Your task to perform on an android device: clear all cookies in the chrome app Image 0: 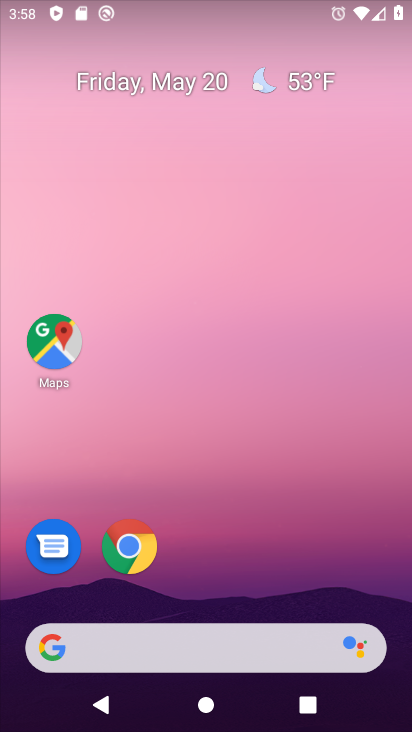
Step 0: click (132, 550)
Your task to perform on an android device: clear all cookies in the chrome app Image 1: 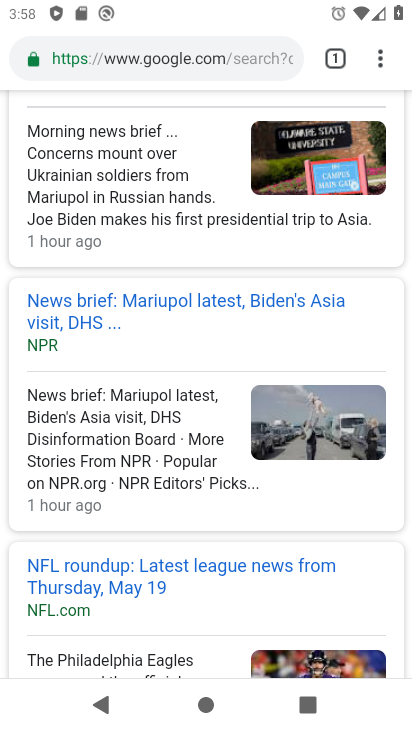
Step 1: drag from (383, 66) to (183, 232)
Your task to perform on an android device: clear all cookies in the chrome app Image 2: 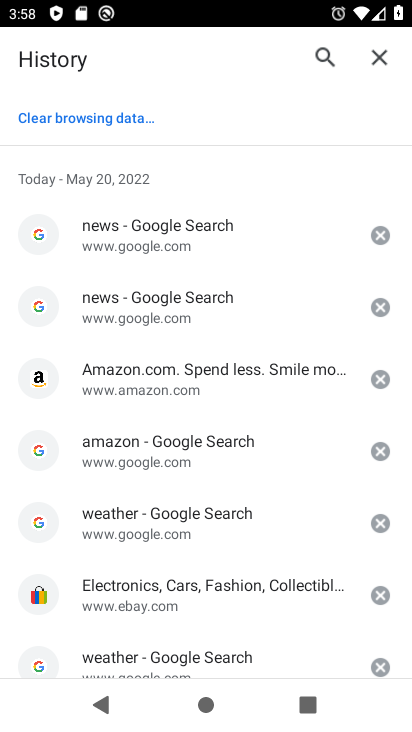
Step 2: click (98, 117)
Your task to perform on an android device: clear all cookies in the chrome app Image 3: 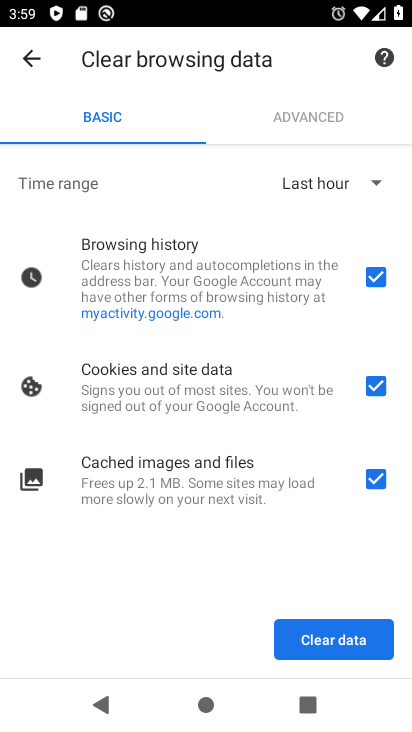
Step 3: click (311, 171)
Your task to perform on an android device: clear all cookies in the chrome app Image 4: 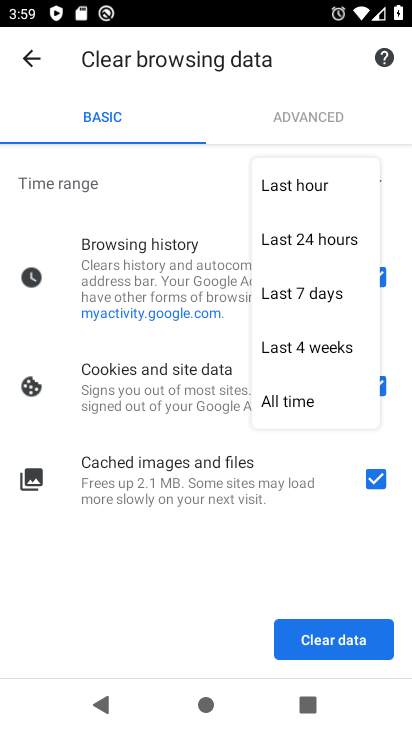
Step 4: click (297, 406)
Your task to perform on an android device: clear all cookies in the chrome app Image 5: 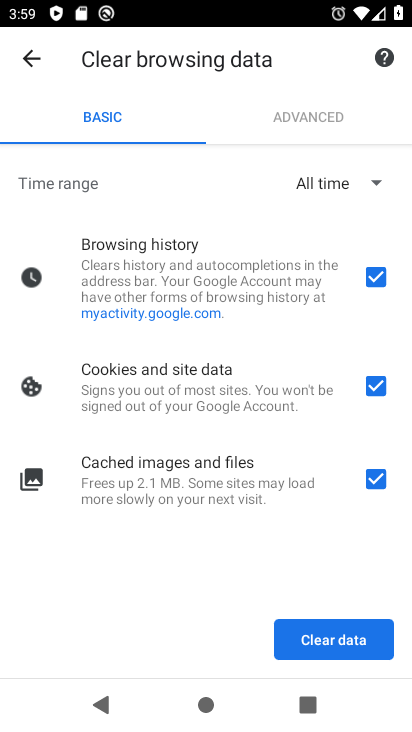
Step 5: click (374, 637)
Your task to perform on an android device: clear all cookies in the chrome app Image 6: 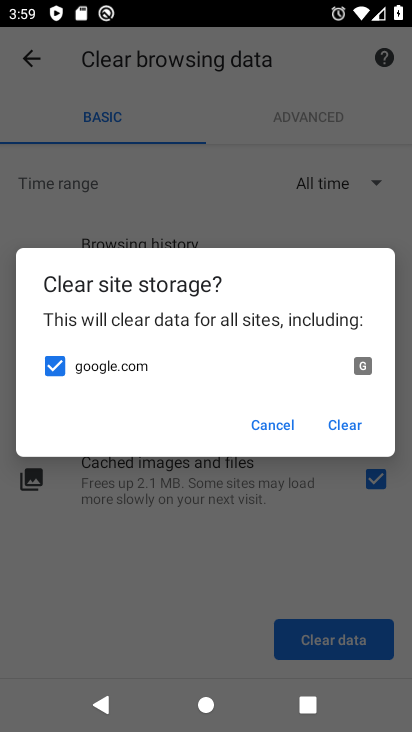
Step 6: click (359, 426)
Your task to perform on an android device: clear all cookies in the chrome app Image 7: 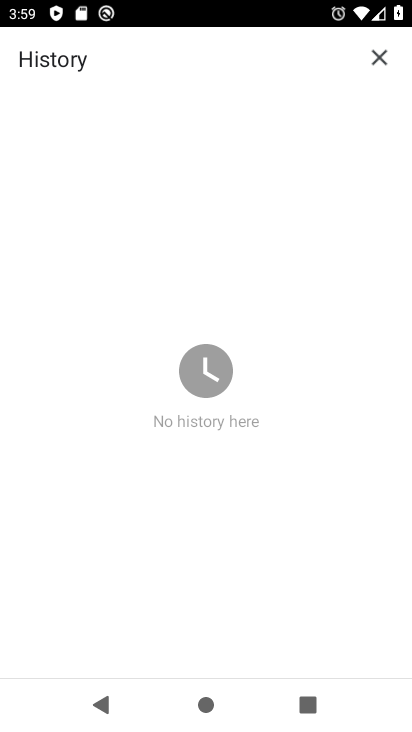
Step 7: task complete